Your task to perform on an android device: toggle sleep mode Image 0: 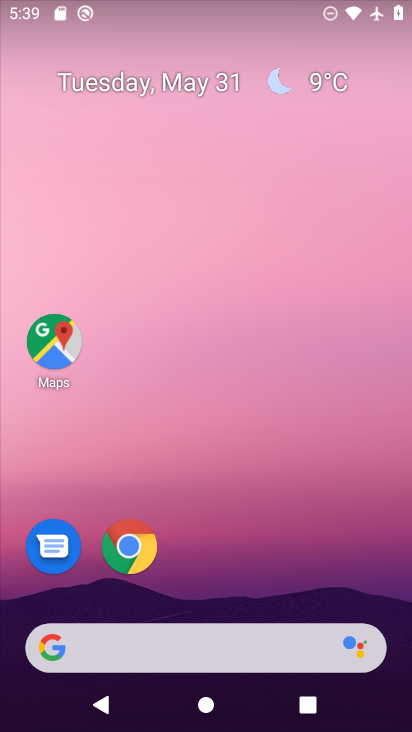
Step 0: drag from (264, 492) to (165, 14)
Your task to perform on an android device: toggle sleep mode Image 1: 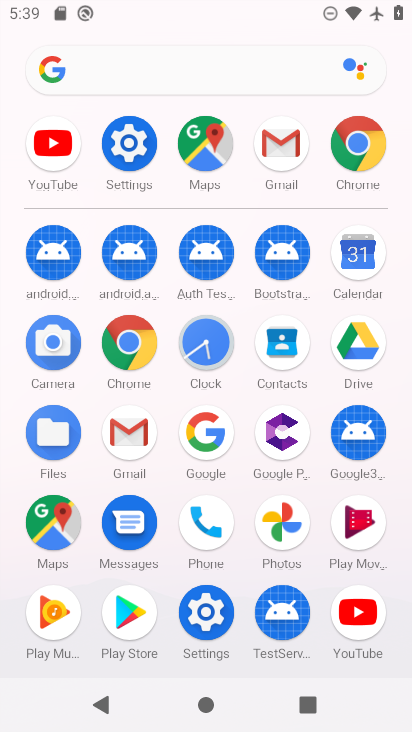
Step 1: click (122, 126)
Your task to perform on an android device: toggle sleep mode Image 2: 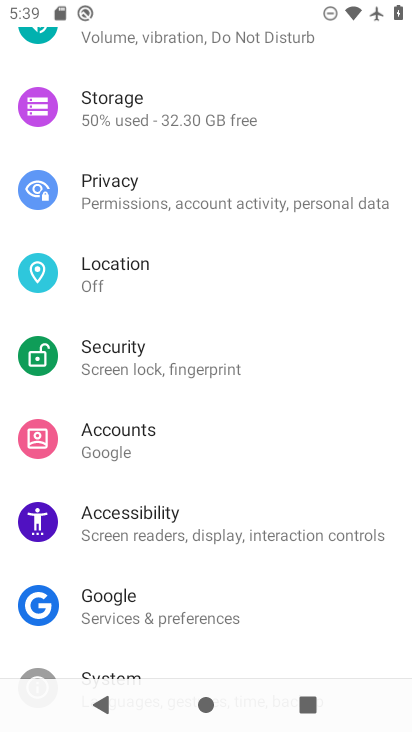
Step 2: drag from (237, 506) to (252, 723)
Your task to perform on an android device: toggle sleep mode Image 3: 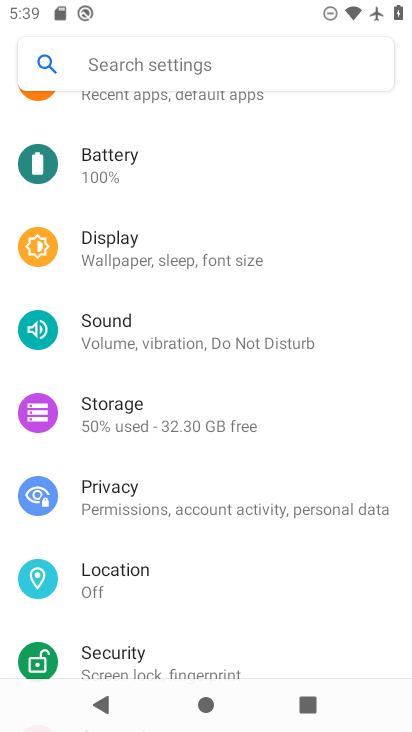
Step 3: click (151, 255)
Your task to perform on an android device: toggle sleep mode Image 4: 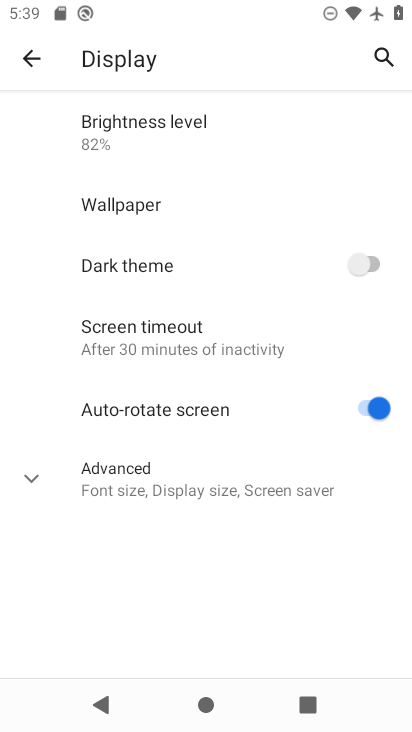
Step 4: task complete